Your task to perform on an android device: Go to calendar. Show me events next week Image 0: 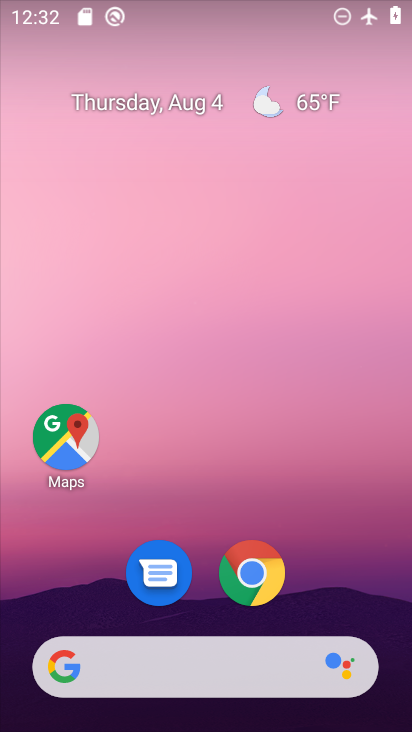
Step 0: drag from (375, 520) to (383, 86)
Your task to perform on an android device: Go to calendar. Show me events next week Image 1: 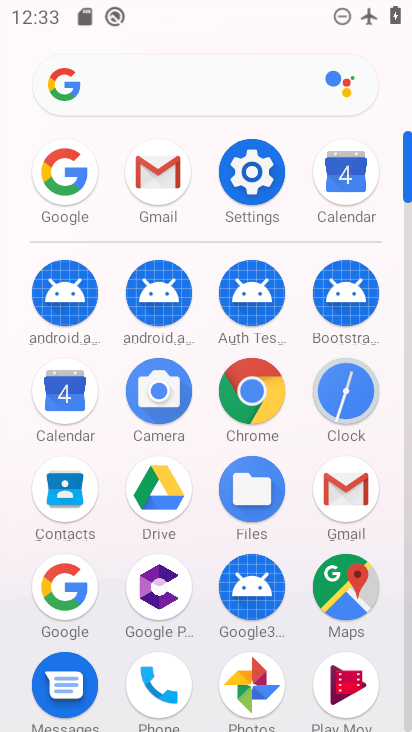
Step 1: click (57, 392)
Your task to perform on an android device: Go to calendar. Show me events next week Image 2: 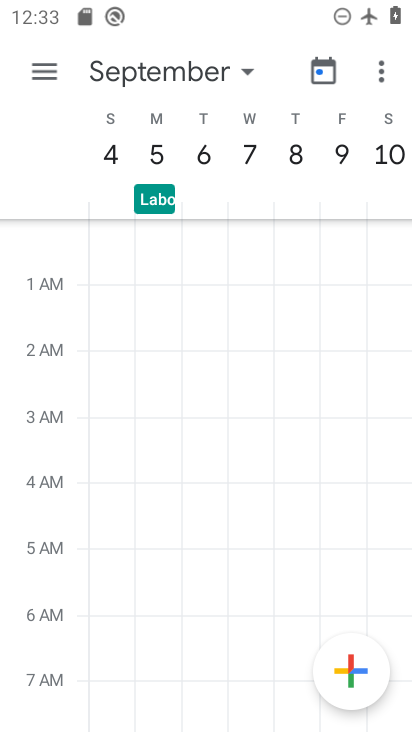
Step 2: click (246, 71)
Your task to perform on an android device: Go to calendar. Show me events next week Image 3: 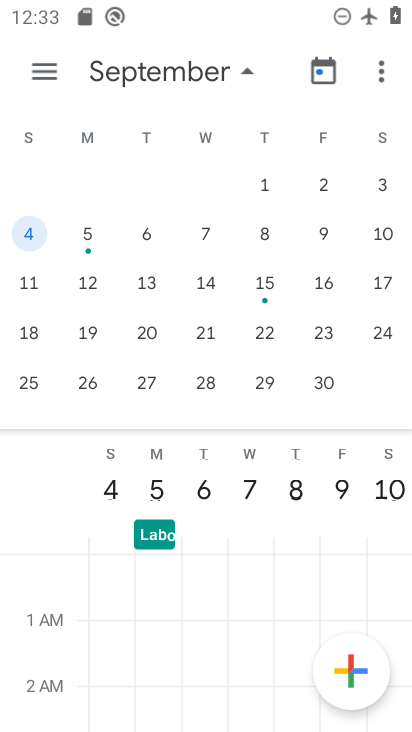
Step 3: drag from (80, 302) to (394, 306)
Your task to perform on an android device: Go to calendar. Show me events next week Image 4: 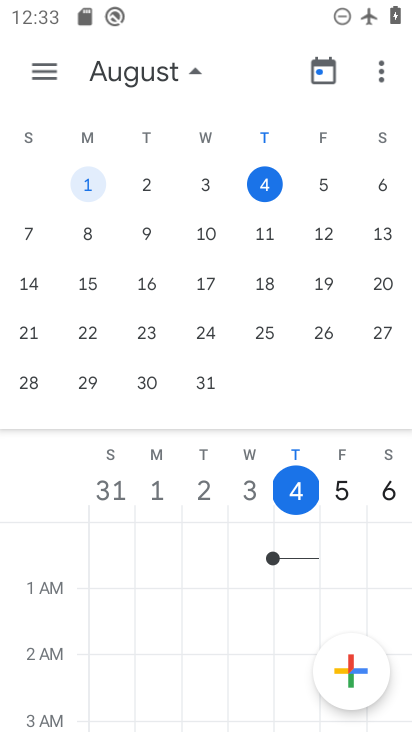
Step 4: click (253, 236)
Your task to perform on an android device: Go to calendar. Show me events next week Image 5: 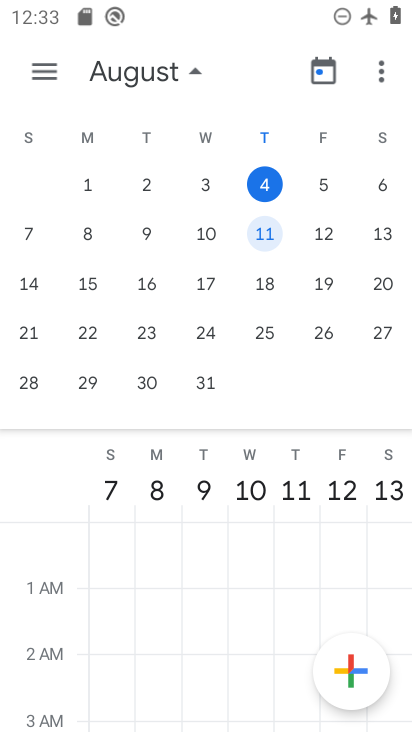
Step 5: task complete